Your task to perform on an android device: What's the weather going to be tomorrow? Image 0: 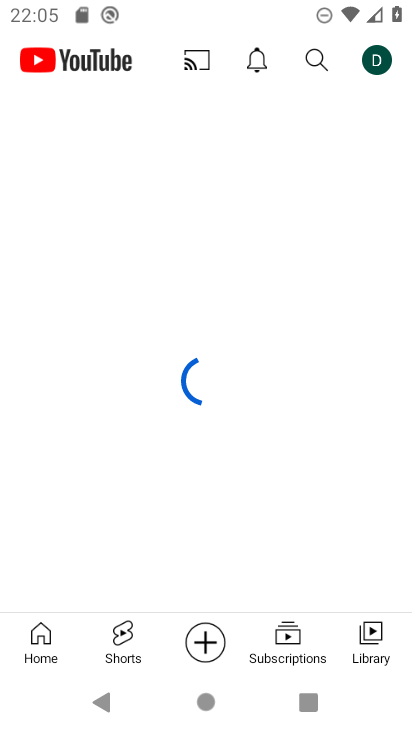
Step 0: press home button
Your task to perform on an android device: What's the weather going to be tomorrow? Image 1: 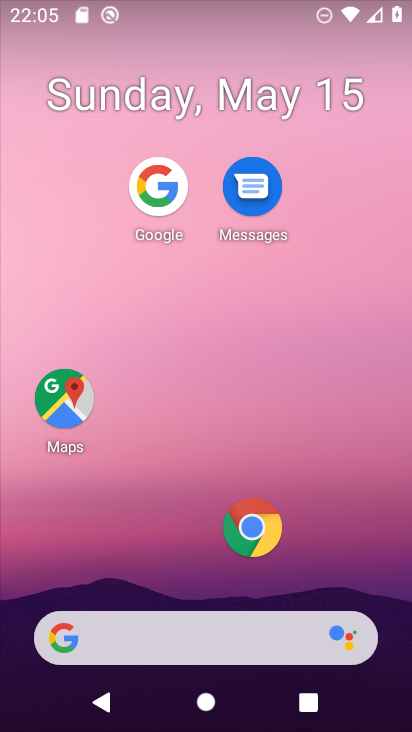
Step 1: click (72, 645)
Your task to perform on an android device: What's the weather going to be tomorrow? Image 2: 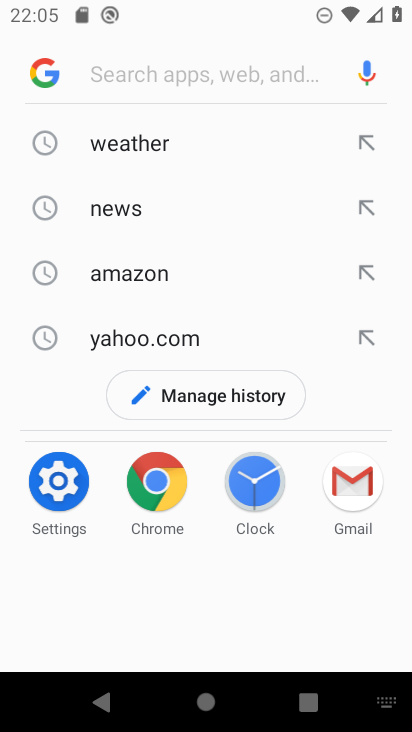
Step 2: click (150, 145)
Your task to perform on an android device: What's the weather going to be tomorrow? Image 3: 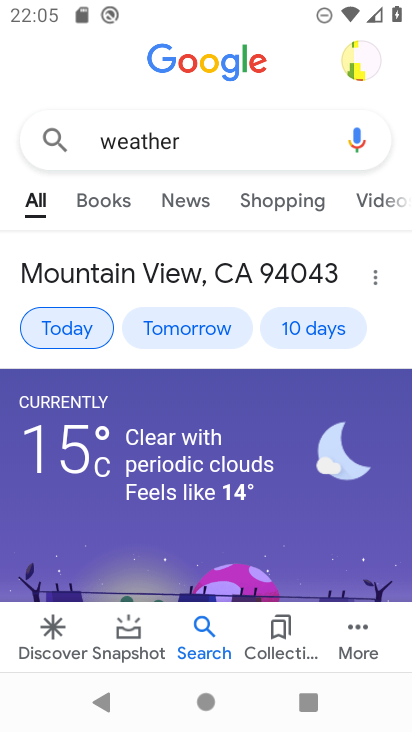
Step 3: click (168, 326)
Your task to perform on an android device: What's the weather going to be tomorrow? Image 4: 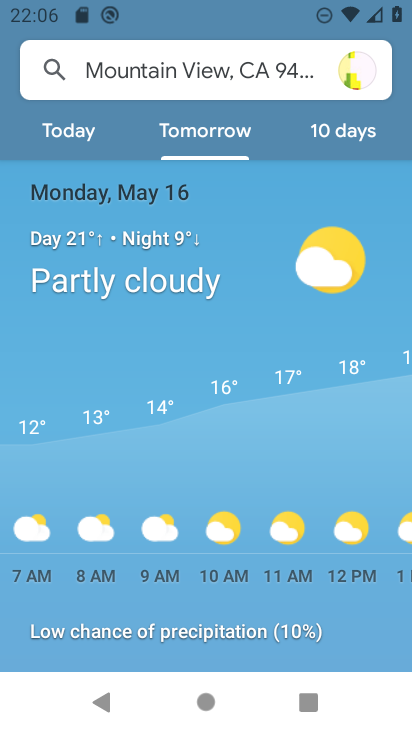
Step 4: task complete